Your task to perform on an android device: turn on the 12-hour format for clock Image 0: 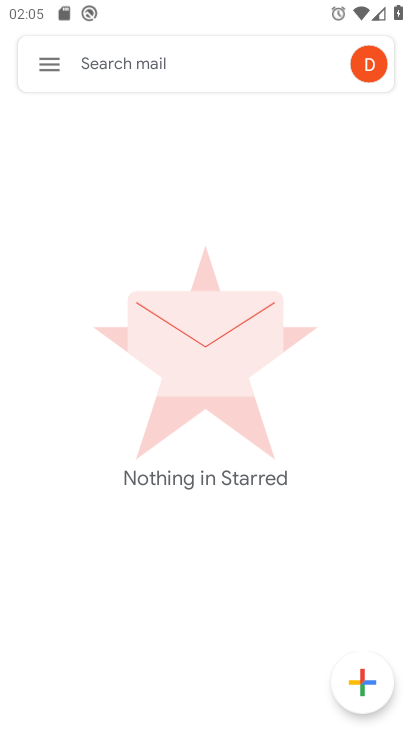
Step 0: press home button
Your task to perform on an android device: turn on the 12-hour format for clock Image 1: 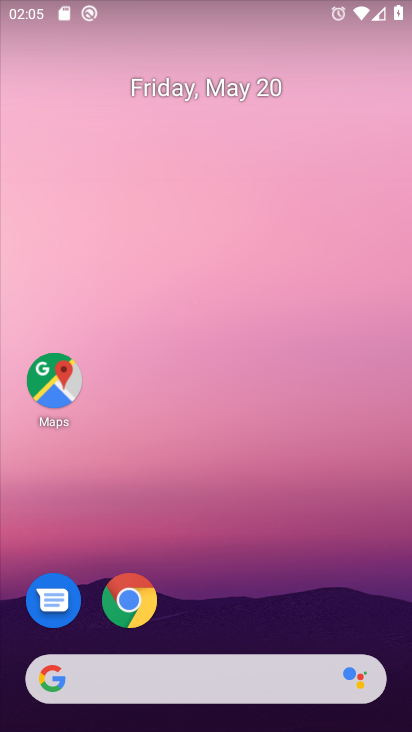
Step 1: drag from (229, 621) to (284, 93)
Your task to perform on an android device: turn on the 12-hour format for clock Image 2: 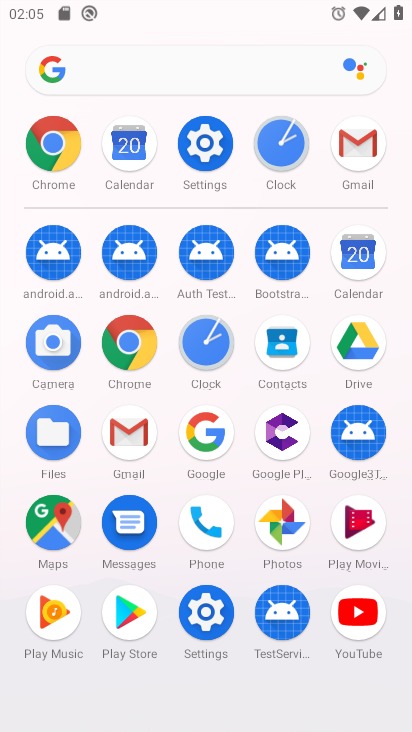
Step 2: click (210, 621)
Your task to perform on an android device: turn on the 12-hour format for clock Image 3: 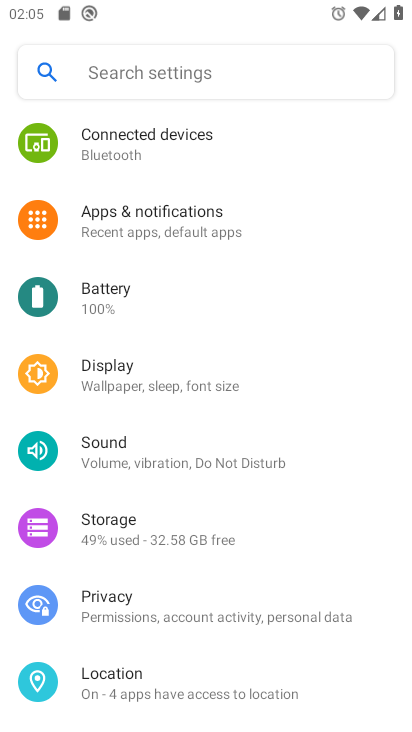
Step 3: drag from (166, 634) to (208, 326)
Your task to perform on an android device: turn on the 12-hour format for clock Image 4: 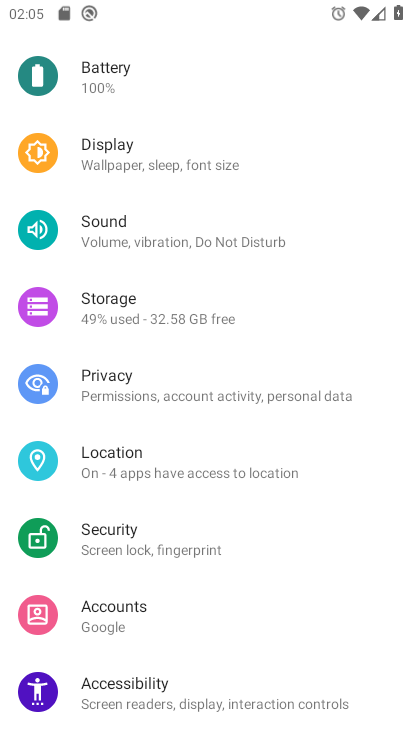
Step 4: drag from (209, 568) to (253, 295)
Your task to perform on an android device: turn on the 12-hour format for clock Image 5: 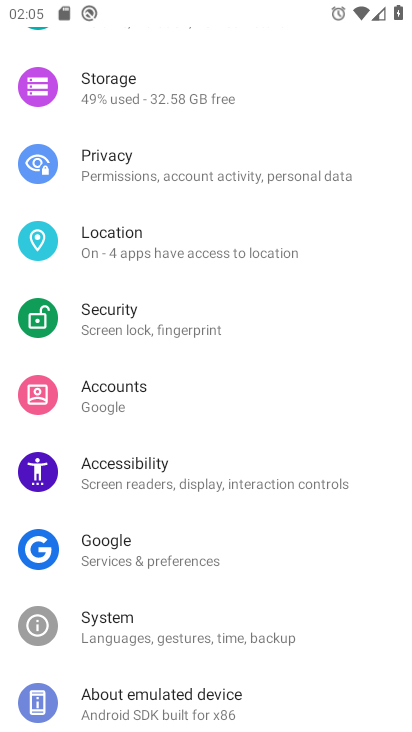
Step 5: click (196, 640)
Your task to perform on an android device: turn on the 12-hour format for clock Image 6: 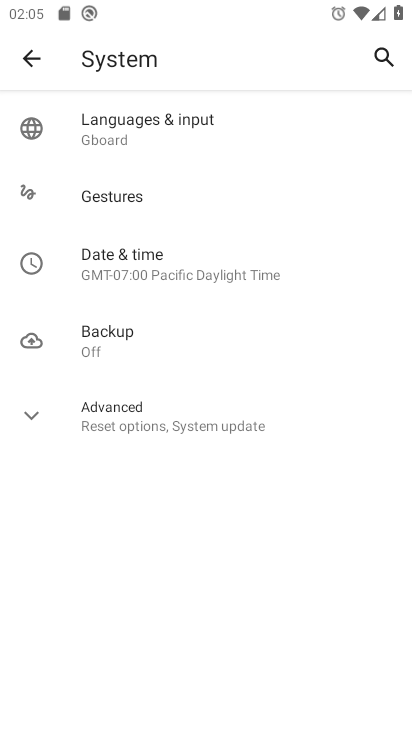
Step 6: click (180, 282)
Your task to perform on an android device: turn on the 12-hour format for clock Image 7: 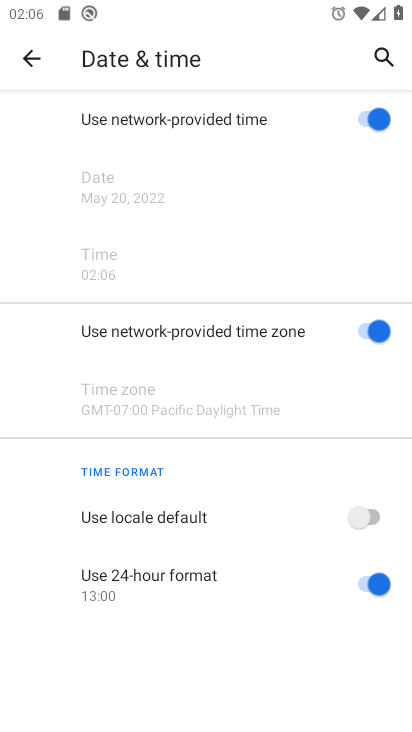
Step 7: click (372, 514)
Your task to perform on an android device: turn on the 12-hour format for clock Image 8: 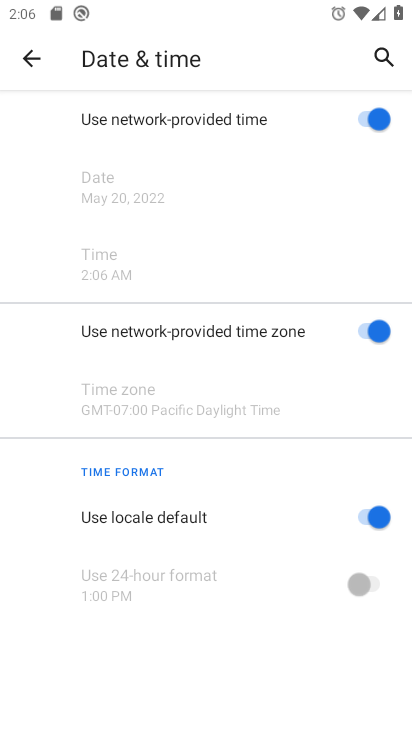
Step 8: task complete